Your task to perform on an android device: Go to Google Image 0: 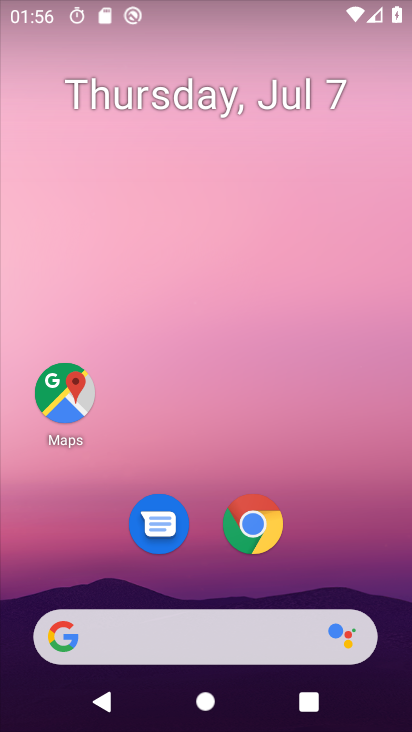
Step 0: click (221, 634)
Your task to perform on an android device: Go to Google Image 1: 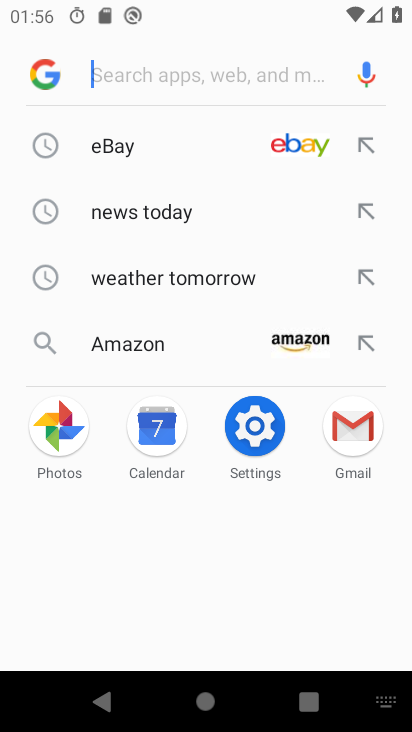
Step 1: click (49, 77)
Your task to perform on an android device: Go to Google Image 2: 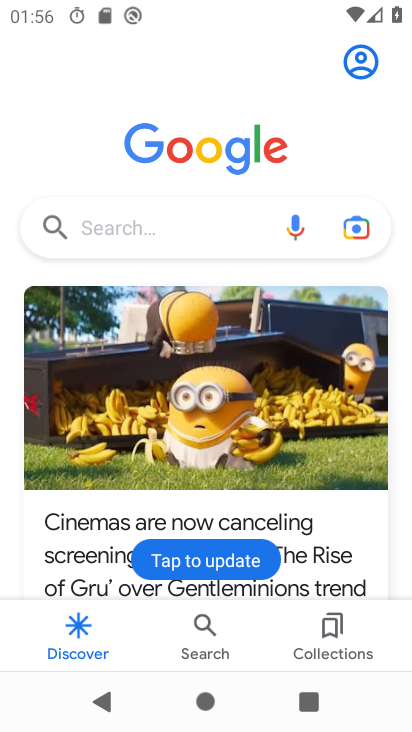
Step 2: task complete